Your task to perform on an android device: all mails in gmail Image 0: 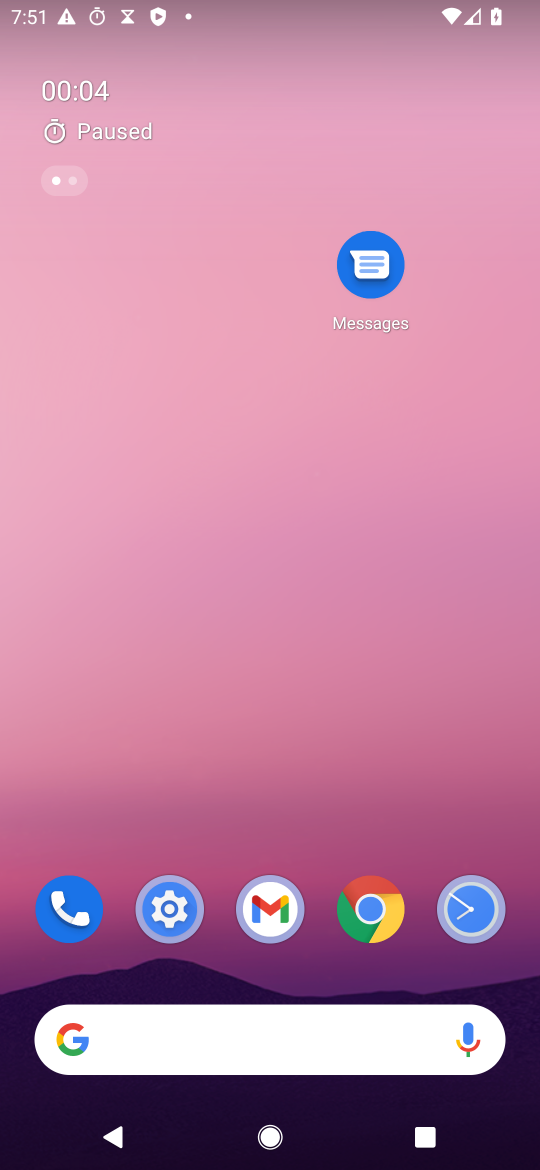
Step 0: click (261, 913)
Your task to perform on an android device: all mails in gmail Image 1: 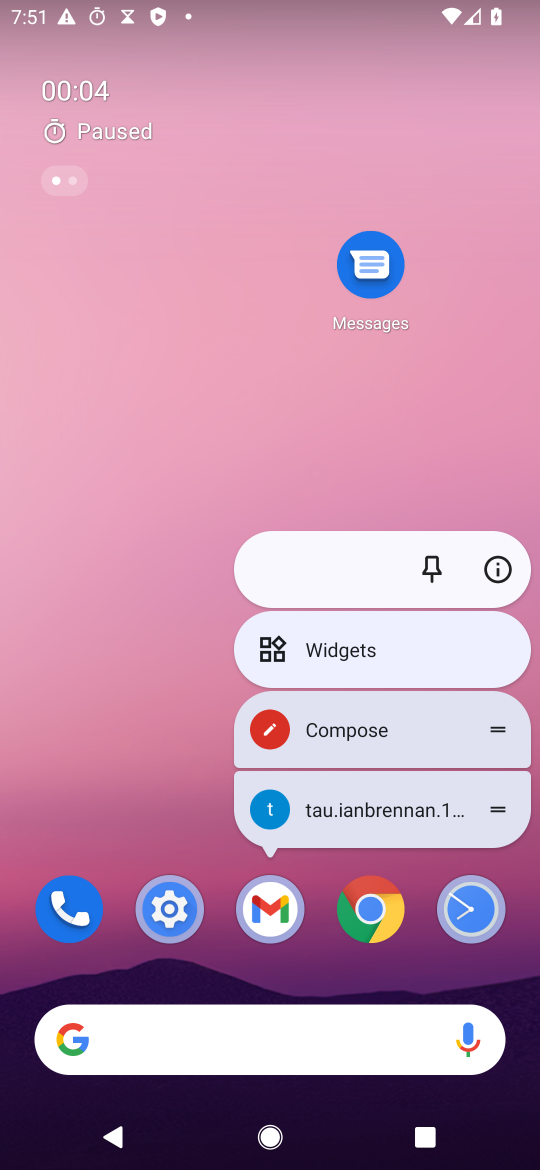
Step 1: click (261, 913)
Your task to perform on an android device: all mails in gmail Image 2: 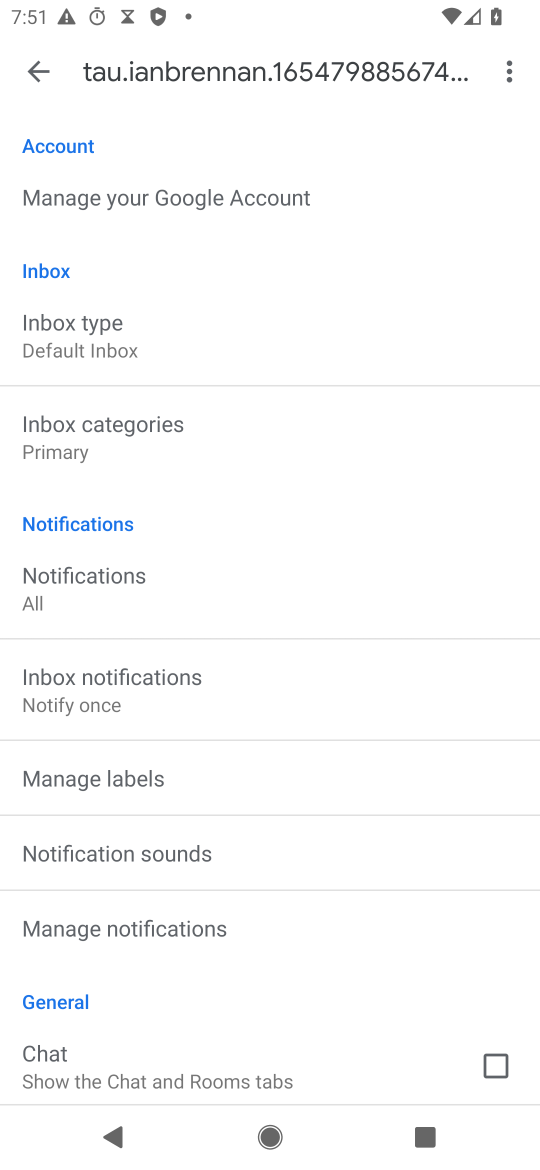
Step 2: click (42, 74)
Your task to perform on an android device: all mails in gmail Image 3: 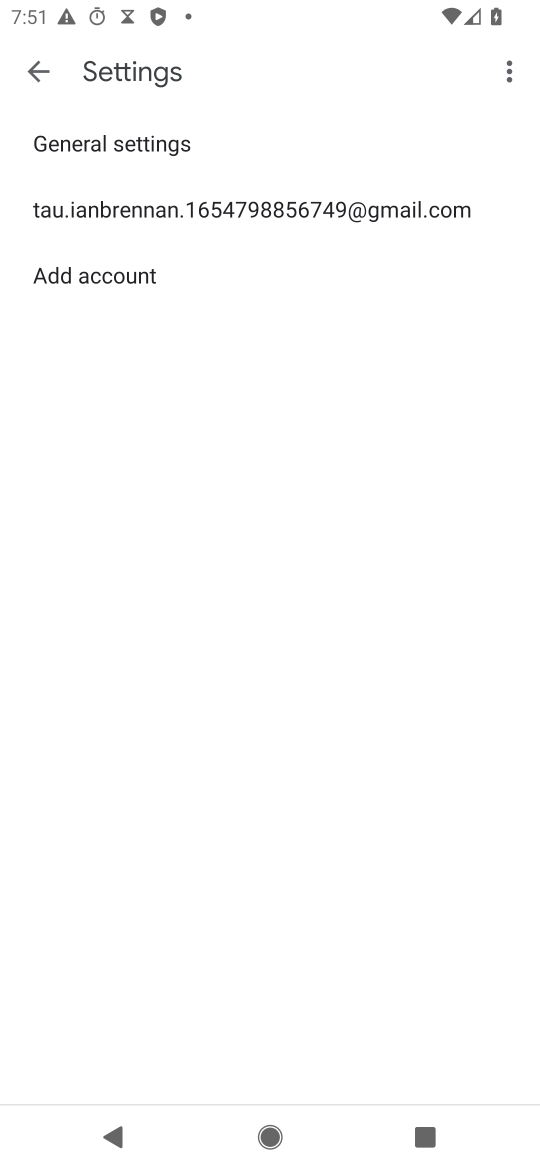
Step 3: click (42, 72)
Your task to perform on an android device: all mails in gmail Image 4: 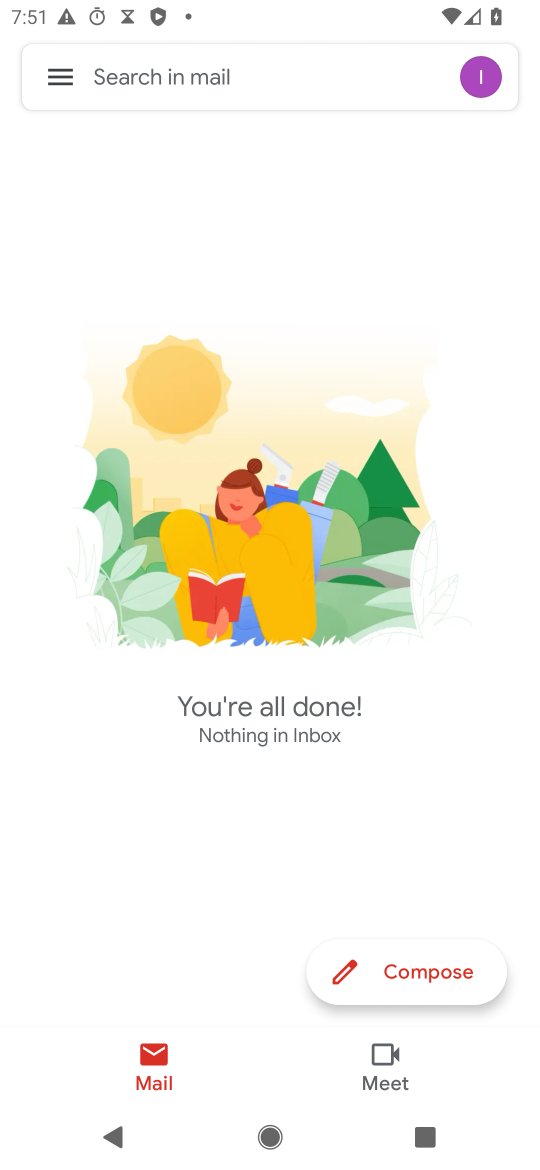
Step 4: click (60, 65)
Your task to perform on an android device: all mails in gmail Image 5: 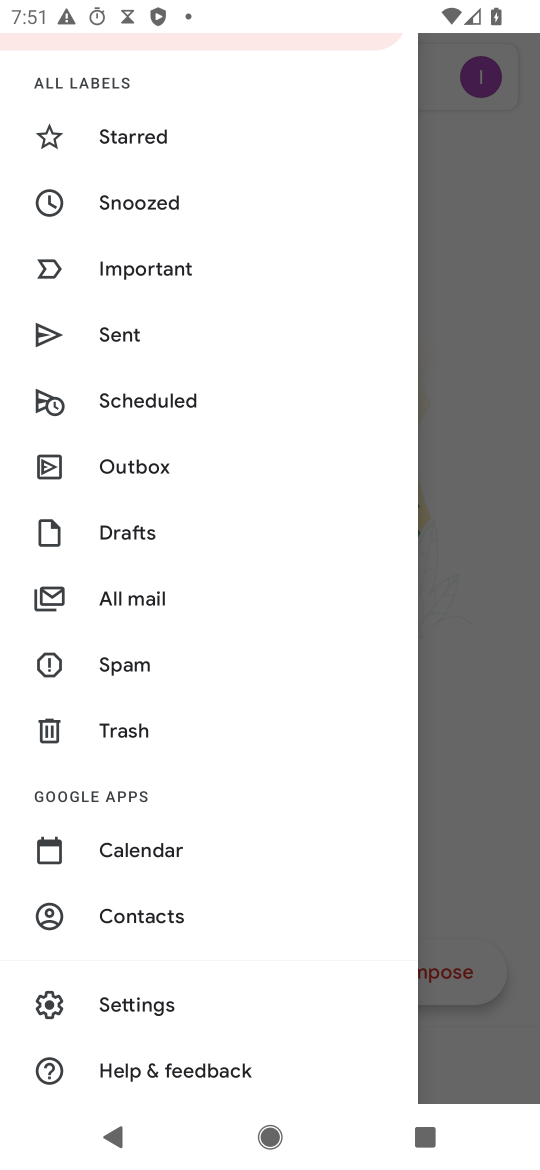
Step 5: click (158, 595)
Your task to perform on an android device: all mails in gmail Image 6: 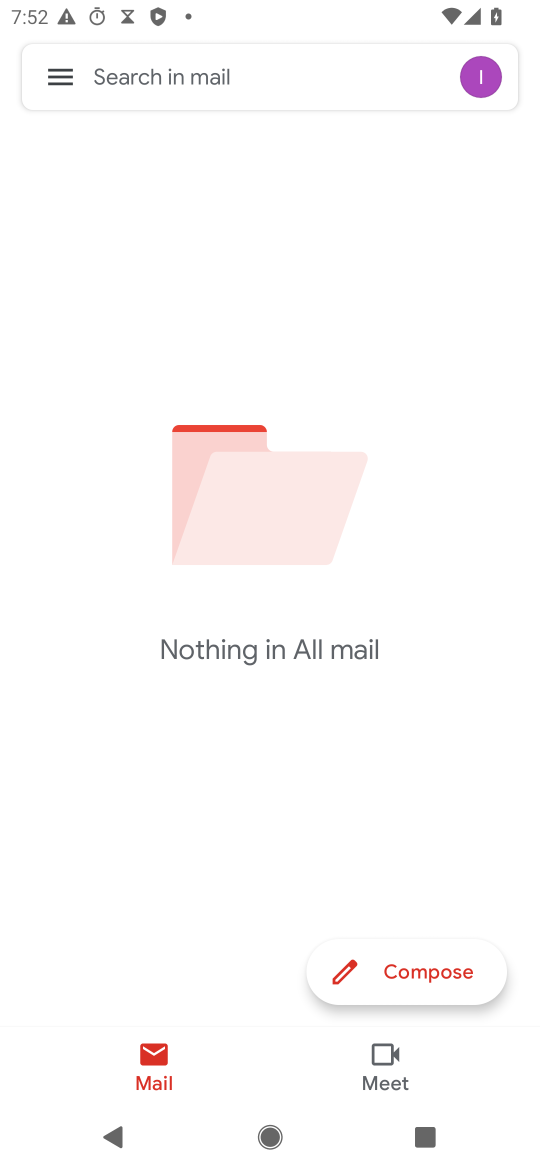
Step 6: task complete